Your task to perform on an android device: visit the assistant section in the google photos Image 0: 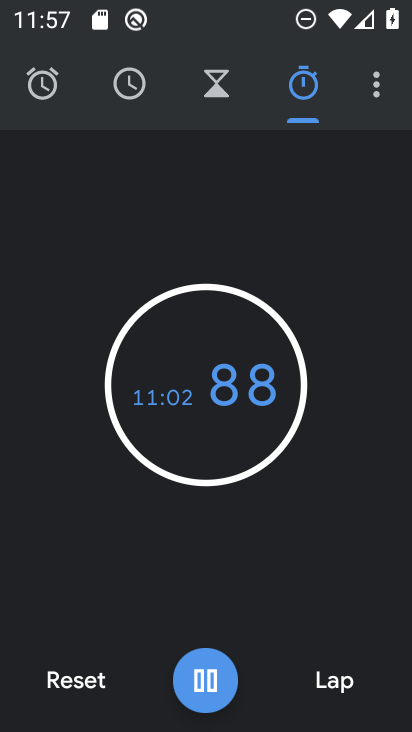
Step 0: press home button
Your task to perform on an android device: visit the assistant section in the google photos Image 1: 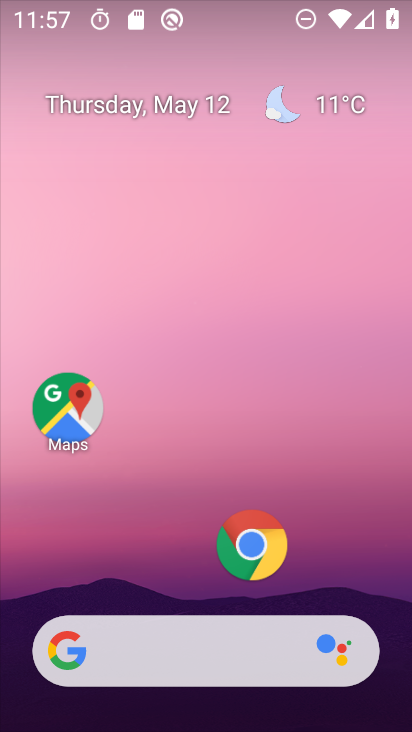
Step 1: drag from (191, 580) to (233, 41)
Your task to perform on an android device: visit the assistant section in the google photos Image 2: 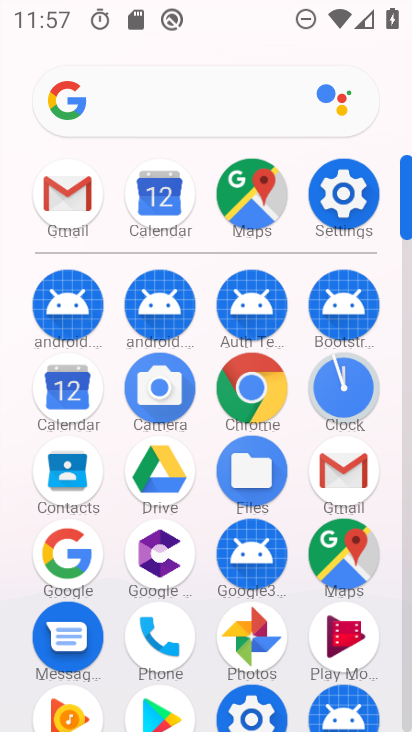
Step 2: click (249, 632)
Your task to perform on an android device: visit the assistant section in the google photos Image 3: 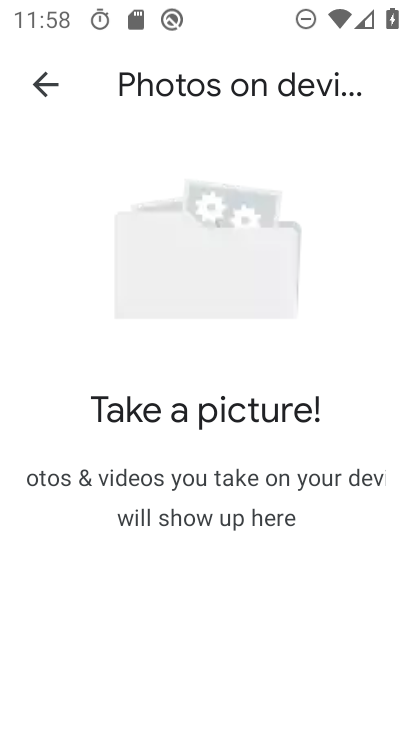
Step 3: click (48, 95)
Your task to perform on an android device: visit the assistant section in the google photos Image 4: 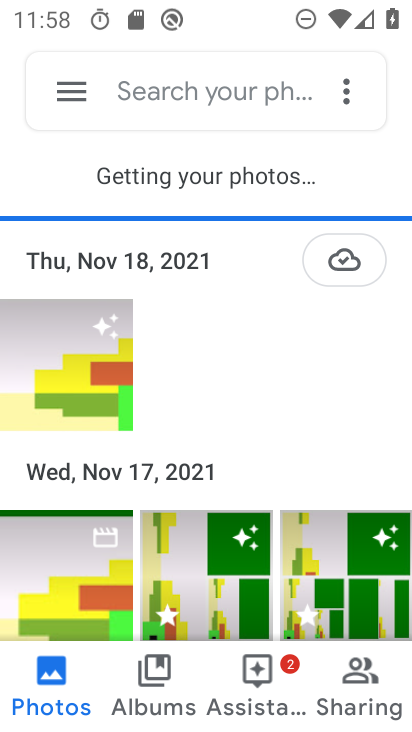
Step 4: click (256, 667)
Your task to perform on an android device: visit the assistant section in the google photos Image 5: 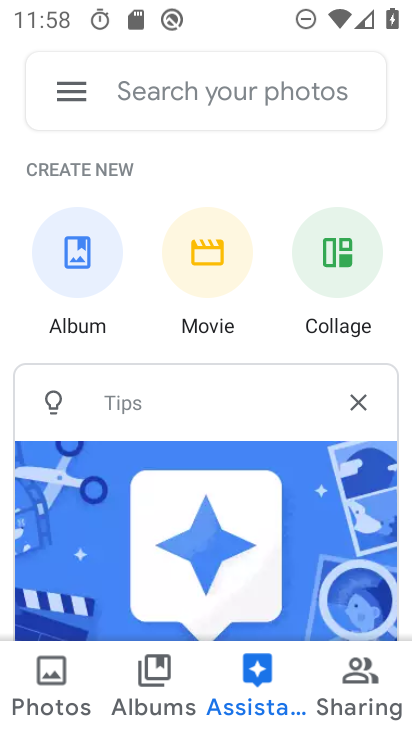
Step 5: task complete